Your task to perform on an android device: Open Google Chrome and open the bookmarks view Image 0: 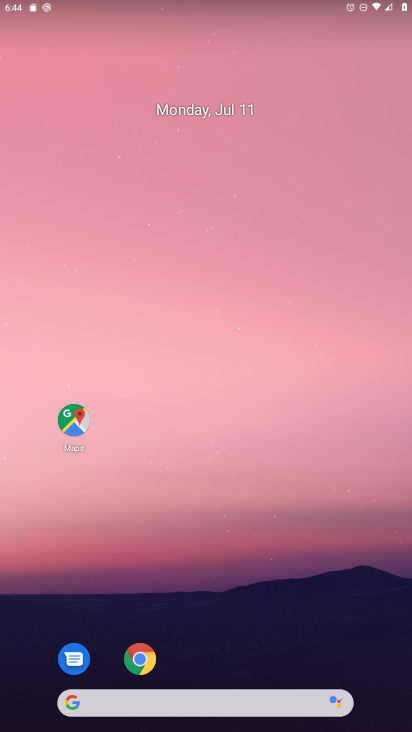
Step 0: click (140, 660)
Your task to perform on an android device: Open Google Chrome and open the bookmarks view Image 1: 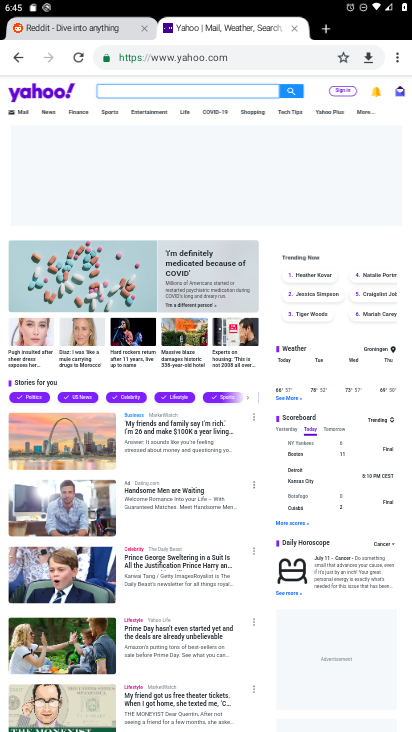
Step 1: click (395, 62)
Your task to perform on an android device: Open Google Chrome and open the bookmarks view Image 2: 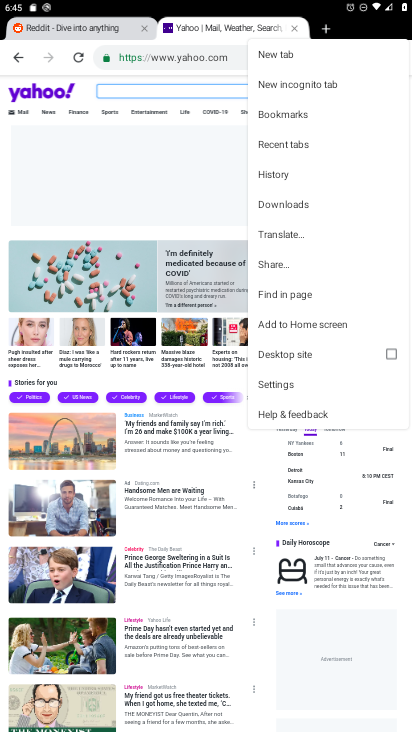
Step 2: click (280, 119)
Your task to perform on an android device: Open Google Chrome and open the bookmarks view Image 3: 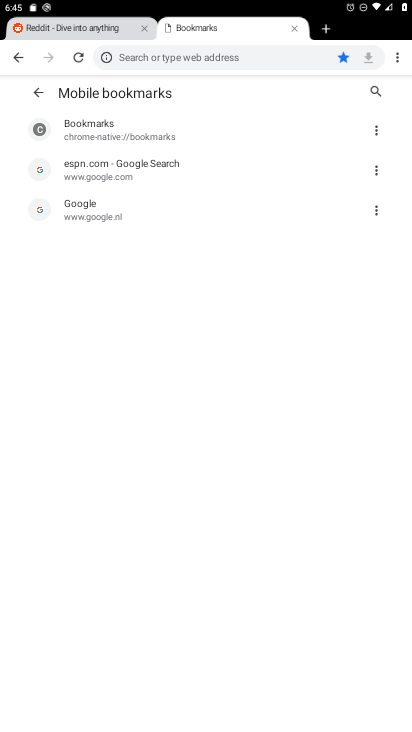
Step 3: task complete